Your task to perform on an android device: turn off notifications in google photos Image 0: 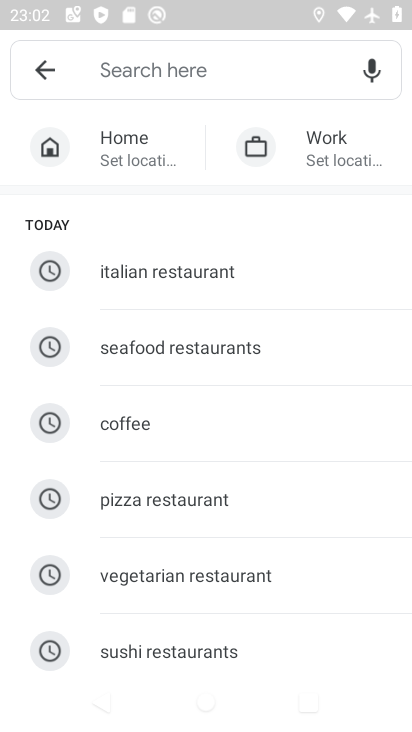
Step 0: press home button
Your task to perform on an android device: turn off notifications in google photos Image 1: 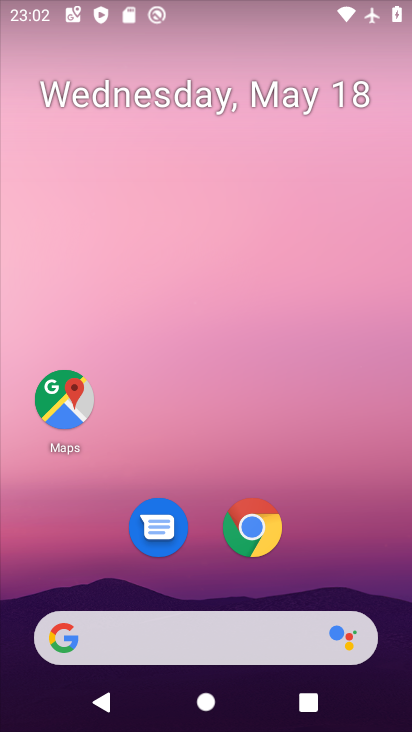
Step 1: drag from (353, 541) to (350, 125)
Your task to perform on an android device: turn off notifications in google photos Image 2: 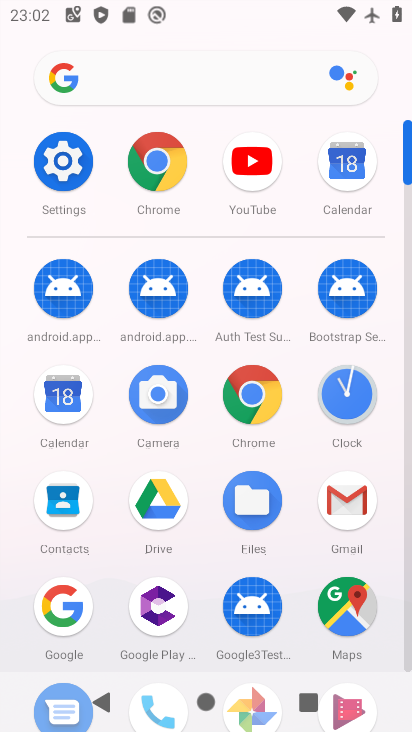
Step 2: click (408, 666)
Your task to perform on an android device: turn off notifications in google photos Image 3: 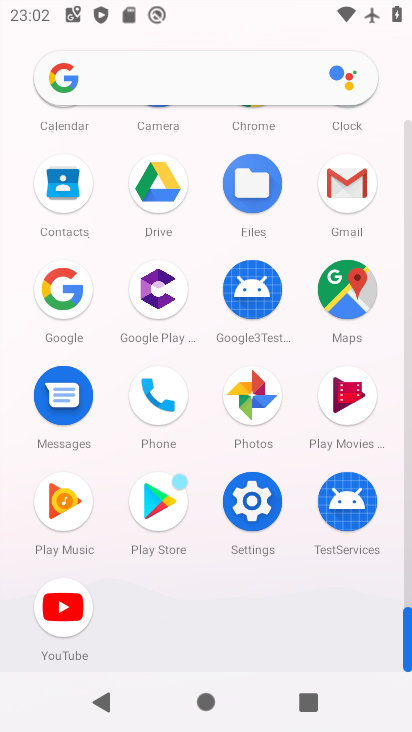
Step 3: click (261, 405)
Your task to perform on an android device: turn off notifications in google photos Image 4: 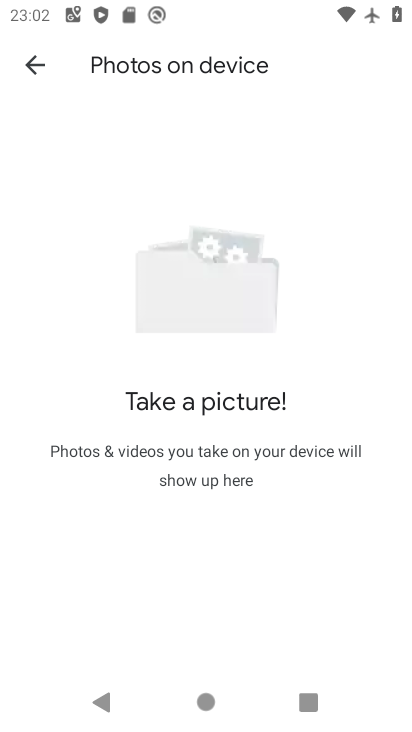
Step 4: click (26, 76)
Your task to perform on an android device: turn off notifications in google photos Image 5: 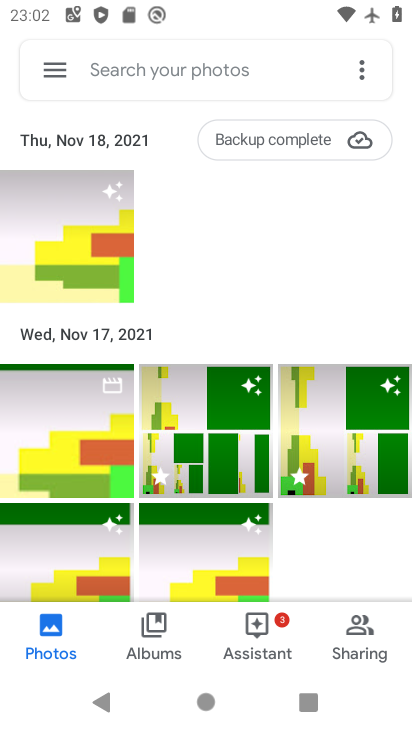
Step 5: click (50, 78)
Your task to perform on an android device: turn off notifications in google photos Image 6: 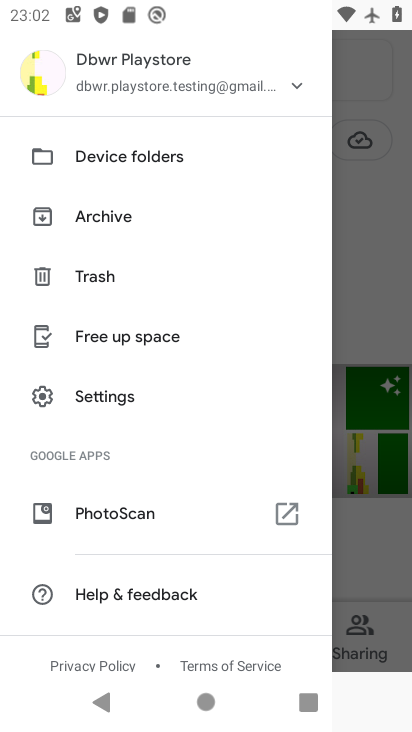
Step 6: click (107, 386)
Your task to perform on an android device: turn off notifications in google photos Image 7: 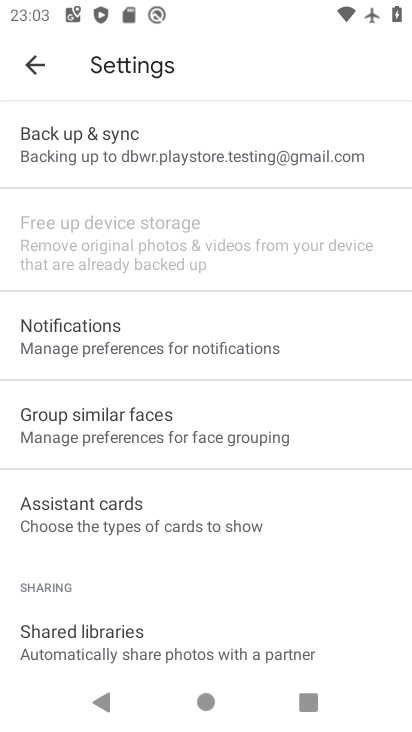
Step 7: click (157, 347)
Your task to perform on an android device: turn off notifications in google photos Image 8: 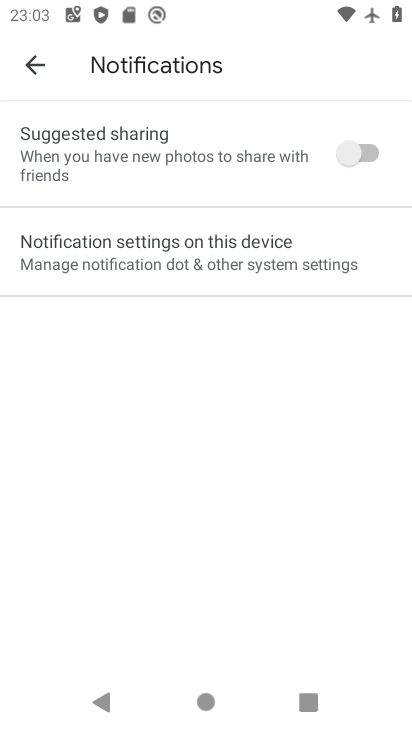
Step 8: click (171, 247)
Your task to perform on an android device: turn off notifications in google photos Image 9: 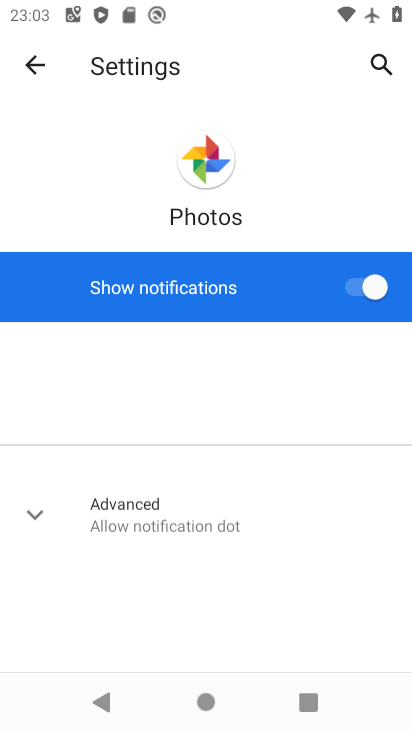
Step 9: task complete